Your task to perform on an android device: turn off airplane mode Image 0: 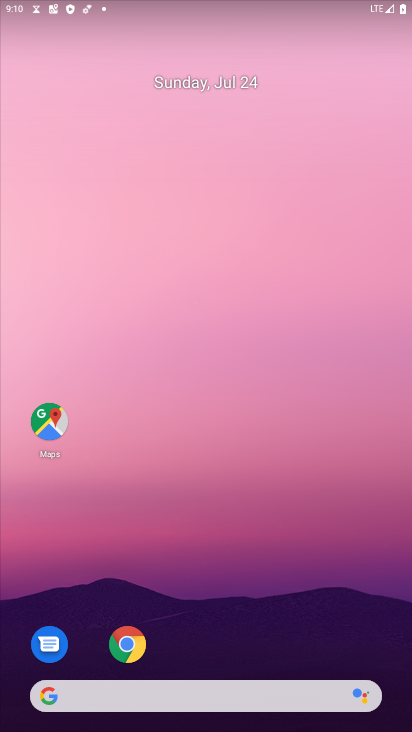
Step 0: drag from (317, 6) to (307, 554)
Your task to perform on an android device: turn off airplane mode Image 1: 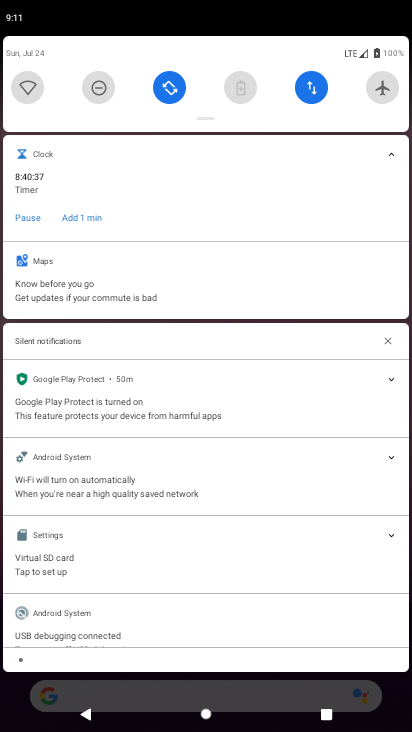
Step 1: task complete